Your task to perform on an android device: move a message to another label in the gmail app Image 0: 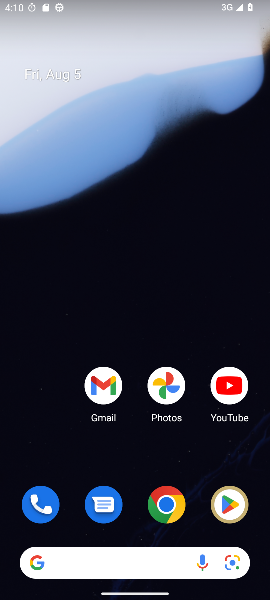
Step 0: click (102, 397)
Your task to perform on an android device: move a message to another label in the gmail app Image 1: 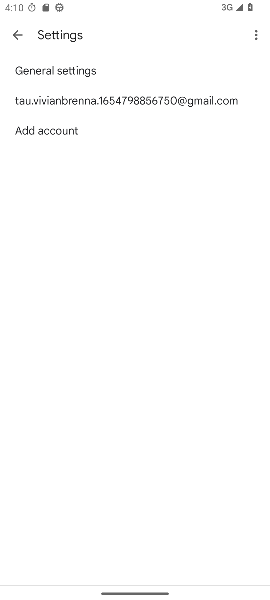
Step 1: click (17, 31)
Your task to perform on an android device: move a message to another label in the gmail app Image 2: 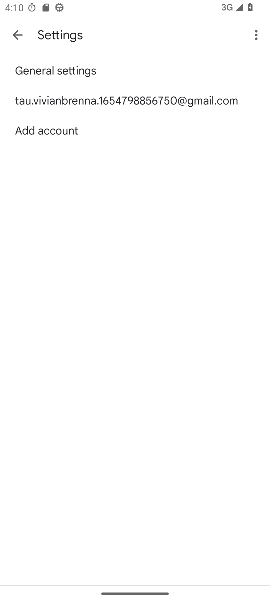
Step 2: click (13, 32)
Your task to perform on an android device: move a message to another label in the gmail app Image 3: 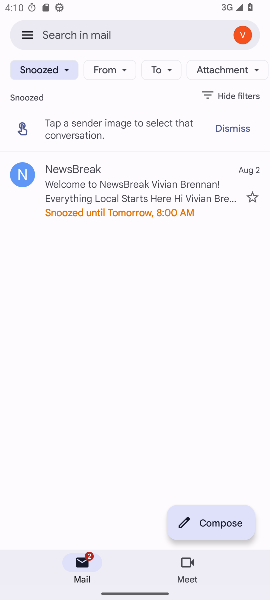
Step 3: click (21, 18)
Your task to perform on an android device: move a message to another label in the gmail app Image 4: 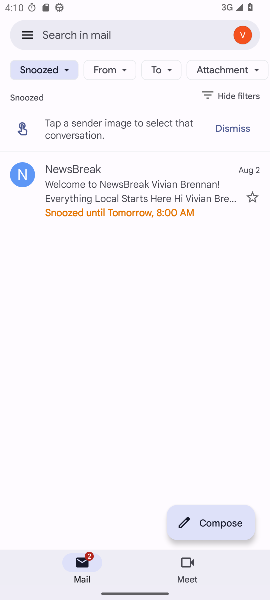
Step 4: click (22, 34)
Your task to perform on an android device: move a message to another label in the gmail app Image 5: 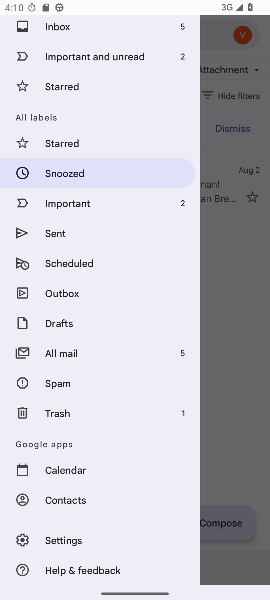
Step 5: click (71, 27)
Your task to perform on an android device: move a message to another label in the gmail app Image 6: 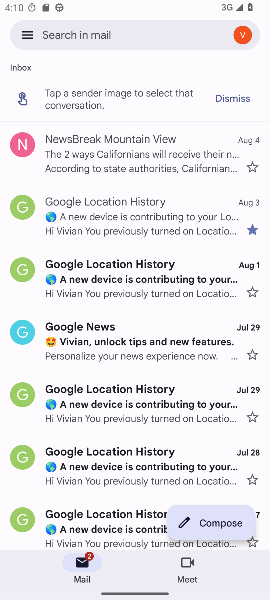
Step 6: task complete